Your task to perform on an android device: open app "Move to iOS" (install if not already installed), go to login, and select forgot password Image 0: 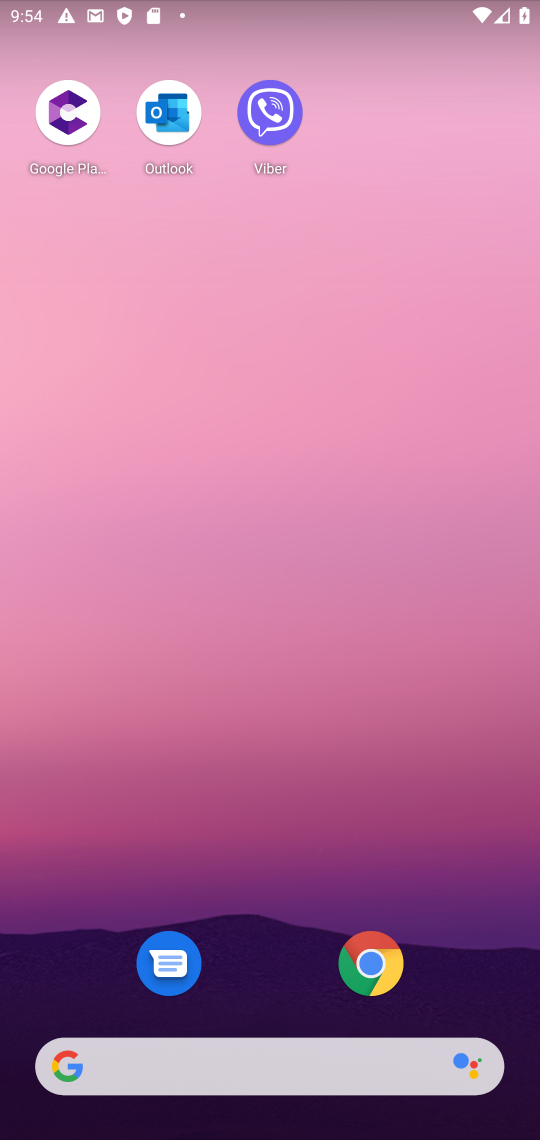
Step 0: drag from (254, 752) to (243, 150)
Your task to perform on an android device: open app "Move to iOS" (install if not already installed), go to login, and select forgot password Image 1: 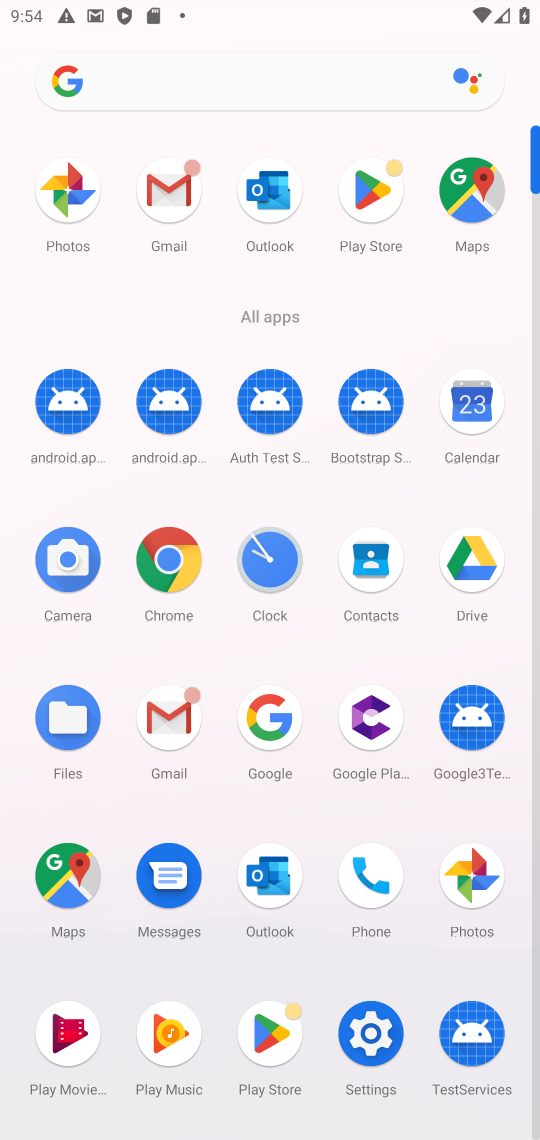
Step 1: click (266, 1046)
Your task to perform on an android device: open app "Move to iOS" (install if not already installed), go to login, and select forgot password Image 2: 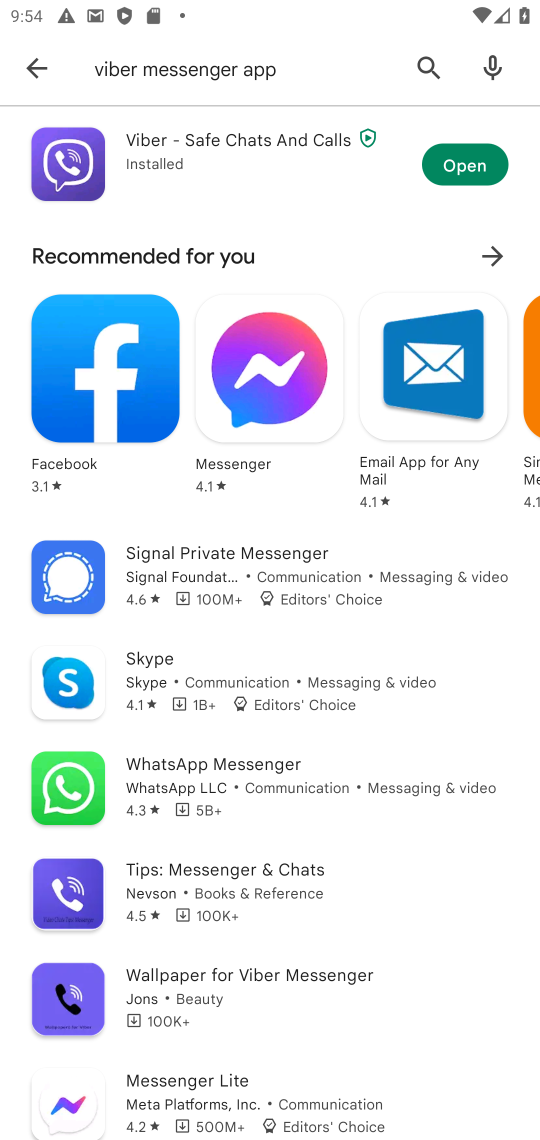
Step 2: click (425, 78)
Your task to perform on an android device: open app "Move to iOS" (install if not already installed), go to login, and select forgot password Image 3: 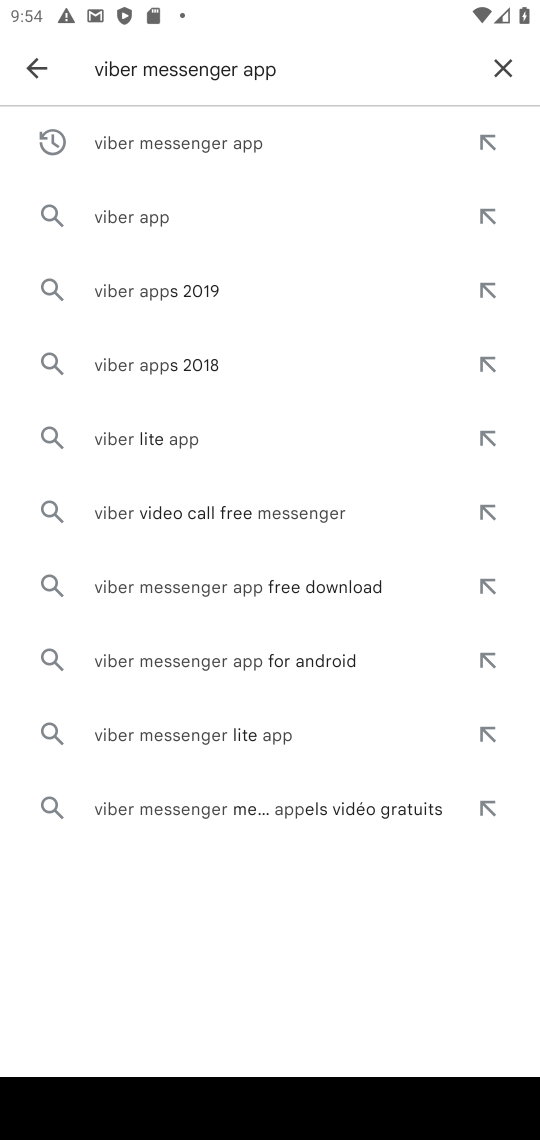
Step 3: click (501, 69)
Your task to perform on an android device: open app "Move to iOS" (install if not already installed), go to login, and select forgot password Image 4: 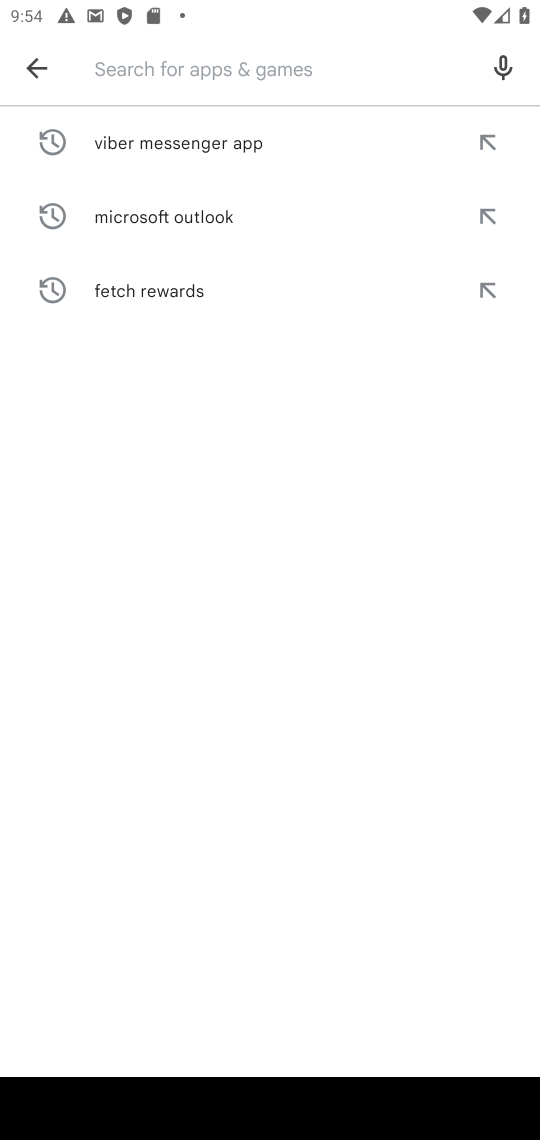
Step 4: type "Move to iOS"
Your task to perform on an android device: open app "Move to iOS" (install if not already installed), go to login, and select forgot password Image 5: 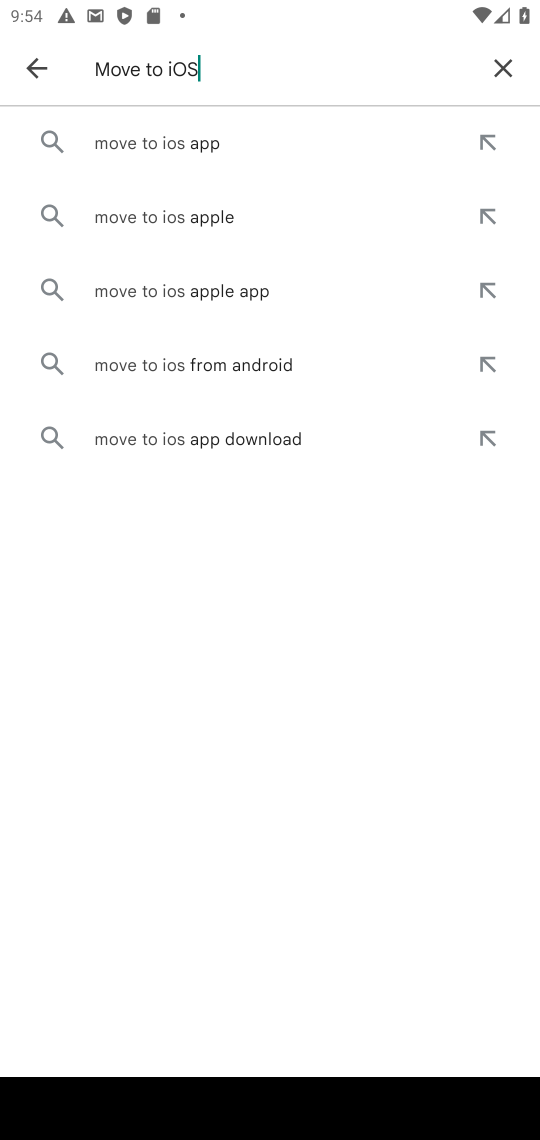
Step 5: click (171, 141)
Your task to perform on an android device: open app "Move to iOS" (install if not already installed), go to login, and select forgot password Image 6: 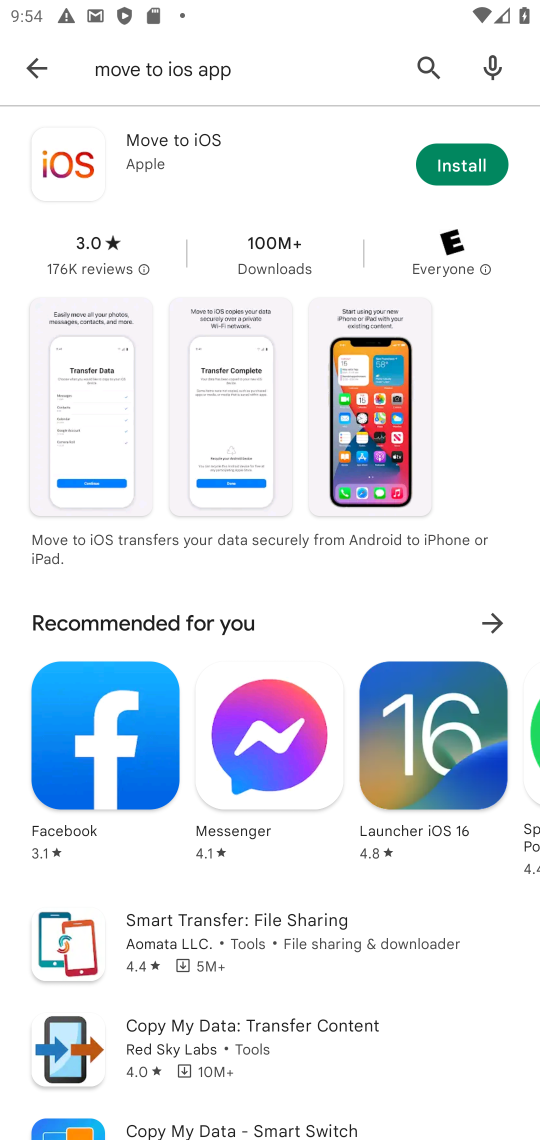
Step 6: click (474, 153)
Your task to perform on an android device: open app "Move to iOS" (install if not already installed), go to login, and select forgot password Image 7: 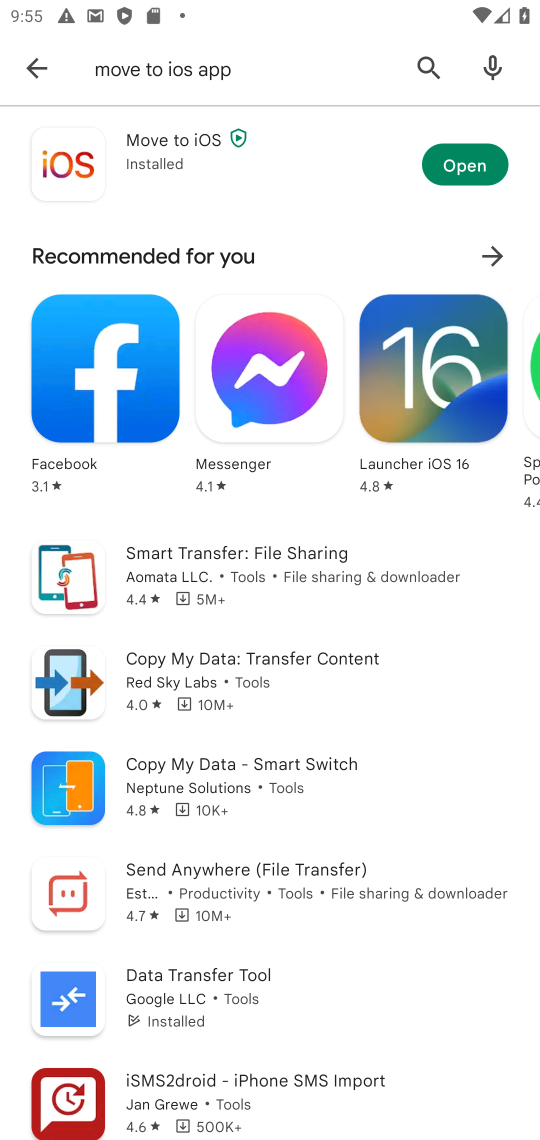
Step 7: click (448, 158)
Your task to perform on an android device: open app "Move to iOS" (install if not already installed), go to login, and select forgot password Image 8: 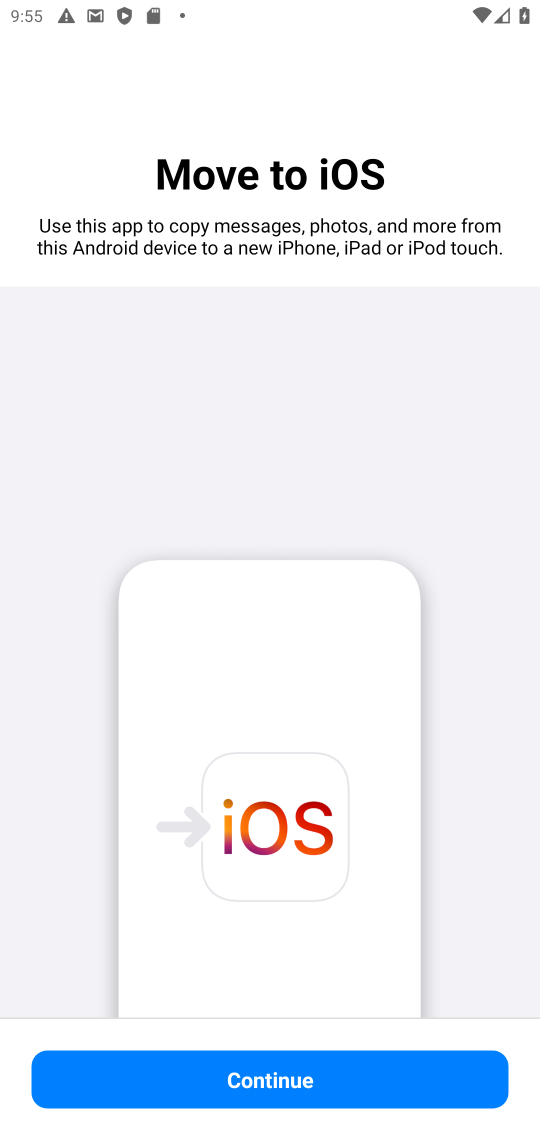
Step 8: task complete